Your task to perform on an android device: snooze an email in the gmail app Image 0: 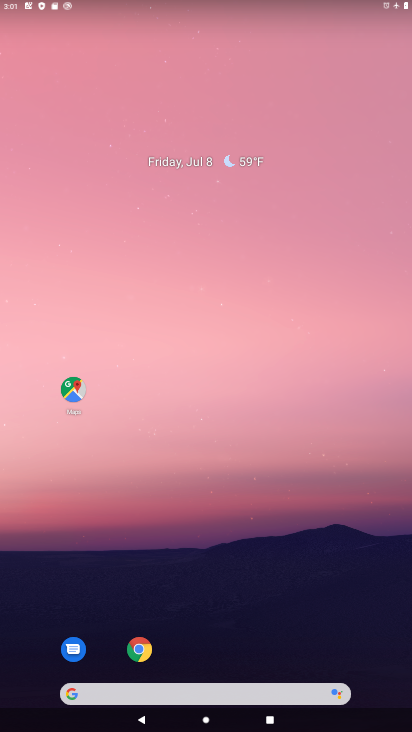
Step 0: drag from (300, 600) to (182, 141)
Your task to perform on an android device: snooze an email in the gmail app Image 1: 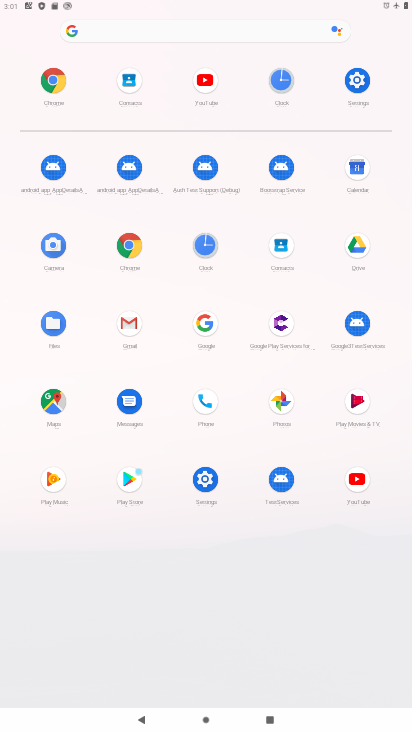
Step 1: click (133, 323)
Your task to perform on an android device: snooze an email in the gmail app Image 2: 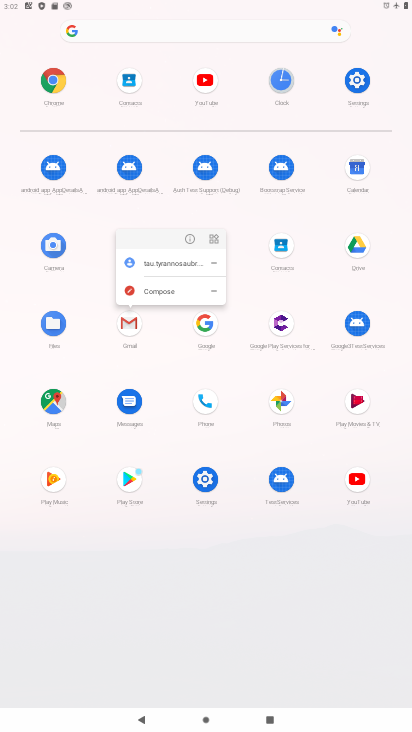
Step 2: click (132, 329)
Your task to perform on an android device: snooze an email in the gmail app Image 3: 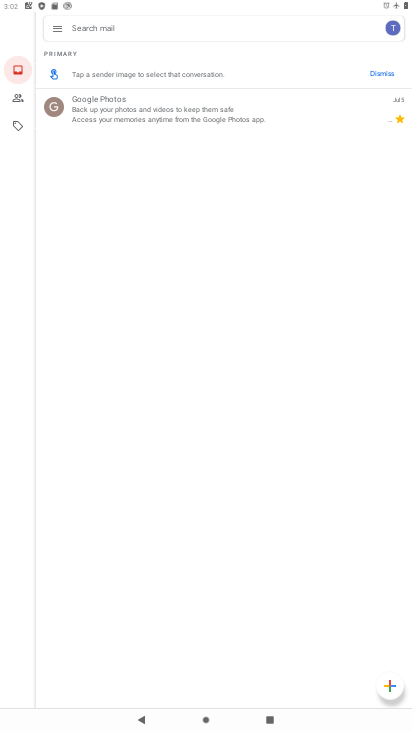
Step 3: drag from (154, 281) to (220, 503)
Your task to perform on an android device: snooze an email in the gmail app Image 4: 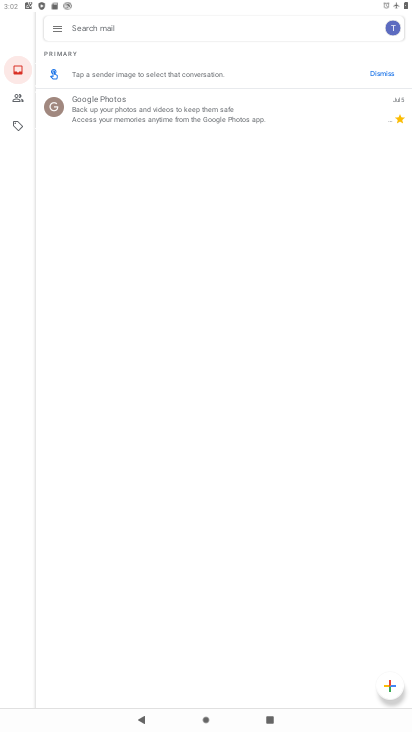
Step 4: click (173, 121)
Your task to perform on an android device: snooze an email in the gmail app Image 5: 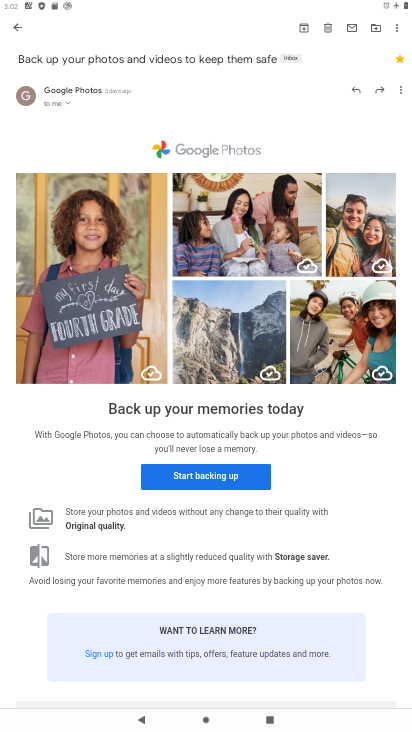
Step 5: click (399, 97)
Your task to perform on an android device: snooze an email in the gmail app Image 6: 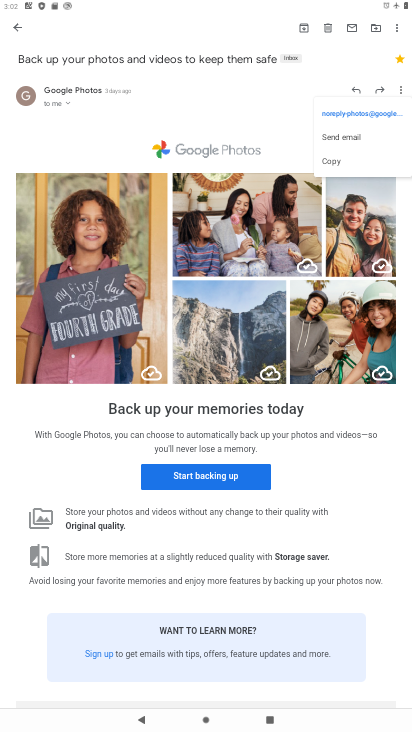
Step 6: click (401, 86)
Your task to perform on an android device: snooze an email in the gmail app Image 7: 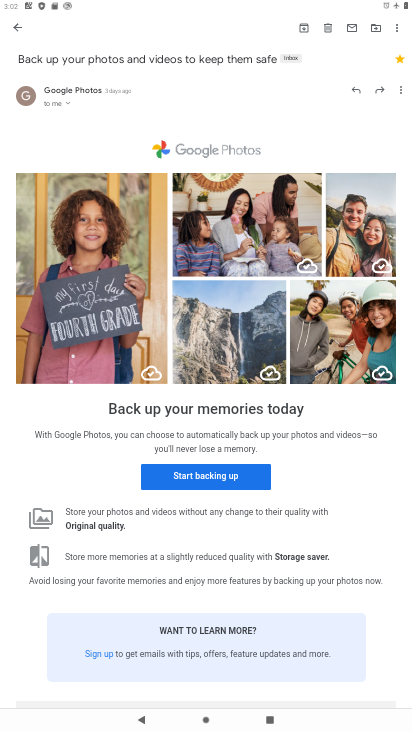
Step 7: click (401, 86)
Your task to perform on an android device: snooze an email in the gmail app Image 8: 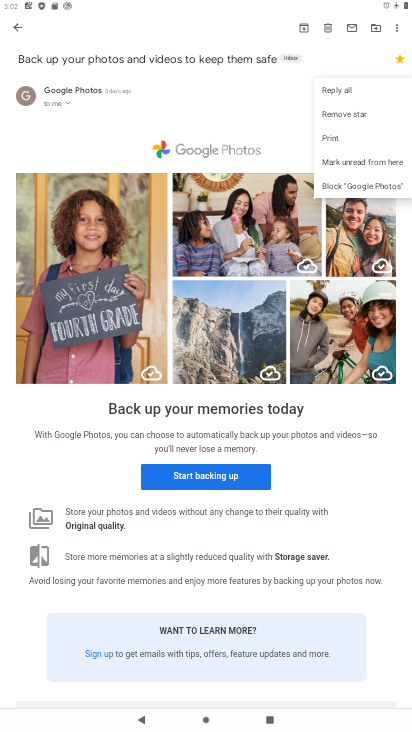
Step 8: click (270, 101)
Your task to perform on an android device: snooze an email in the gmail app Image 9: 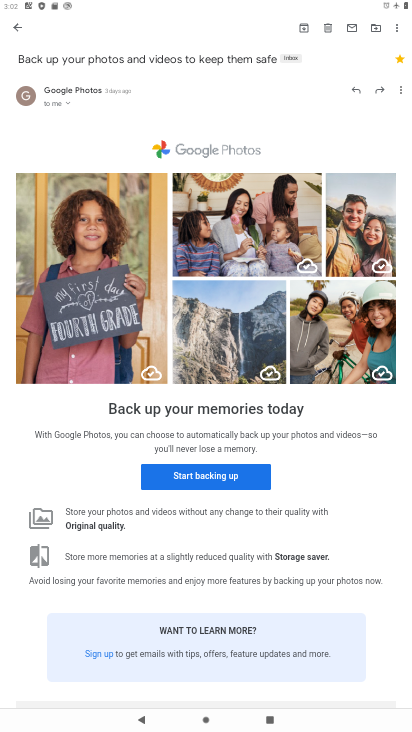
Step 9: click (396, 25)
Your task to perform on an android device: snooze an email in the gmail app Image 10: 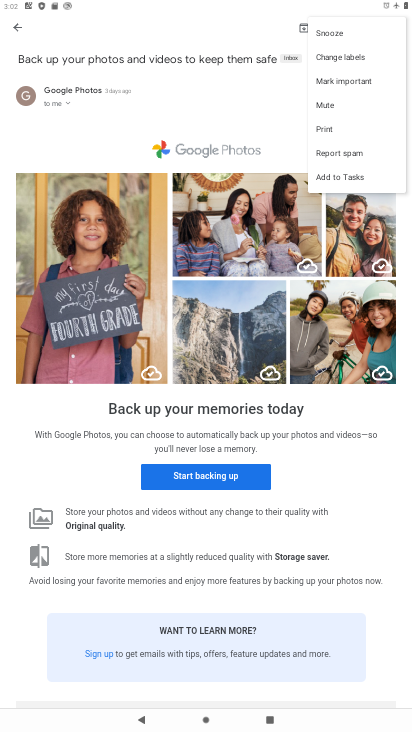
Step 10: click (336, 33)
Your task to perform on an android device: snooze an email in the gmail app Image 11: 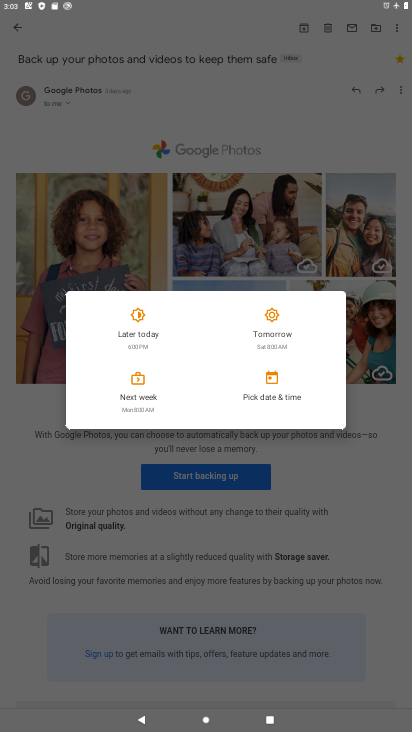
Step 11: click (272, 330)
Your task to perform on an android device: snooze an email in the gmail app Image 12: 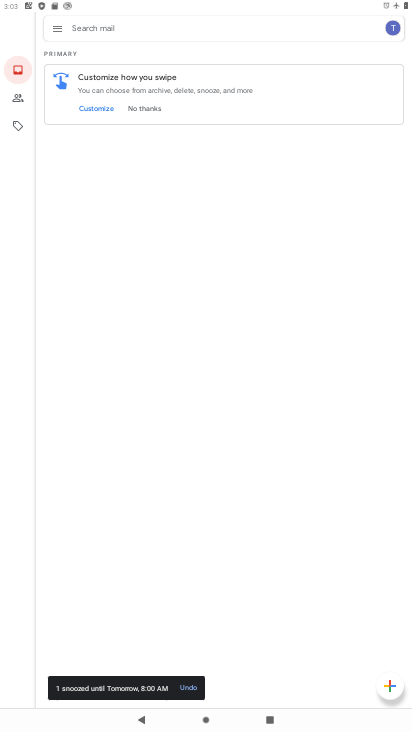
Step 12: task complete